Your task to perform on an android device: find which apps use the phone's location Image 0: 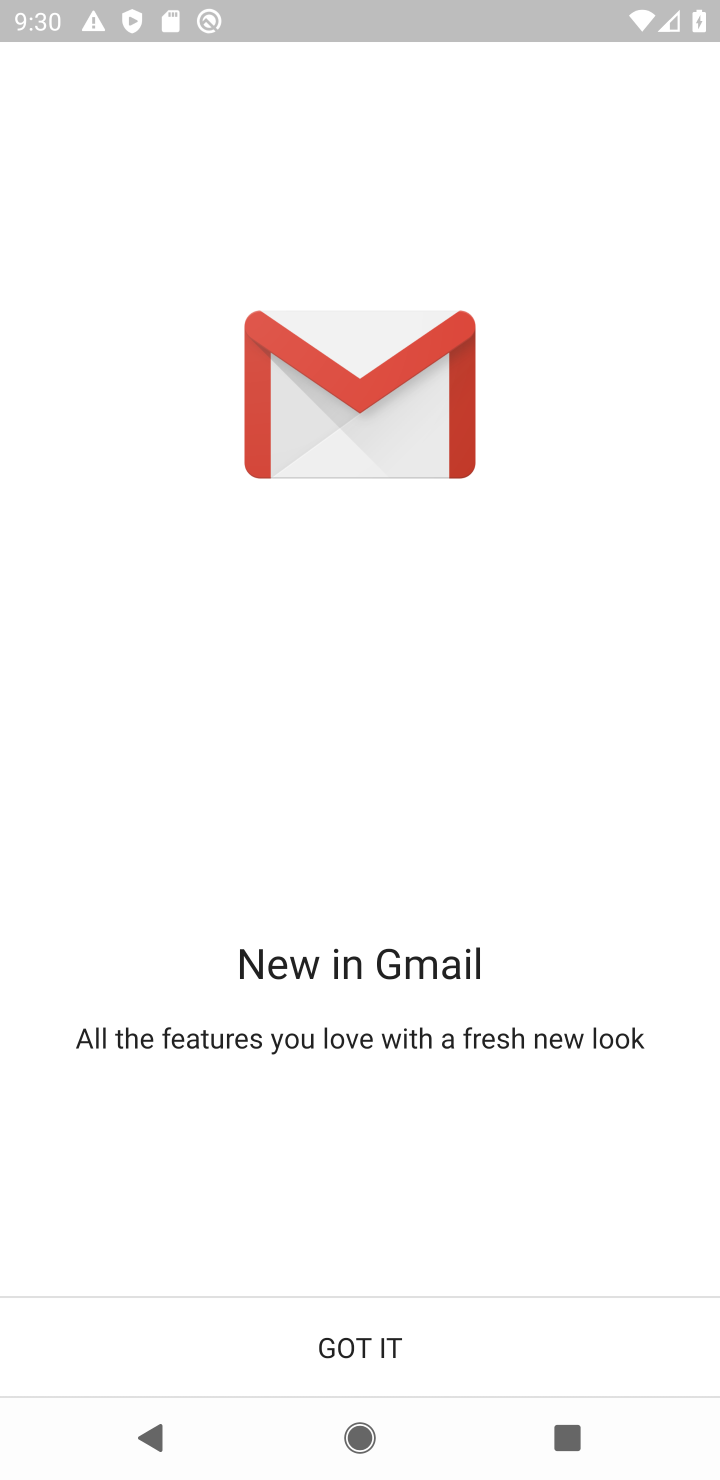
Step 0: press home button
Your task to perform on an android device: find which apps use the phone's location Image 1: 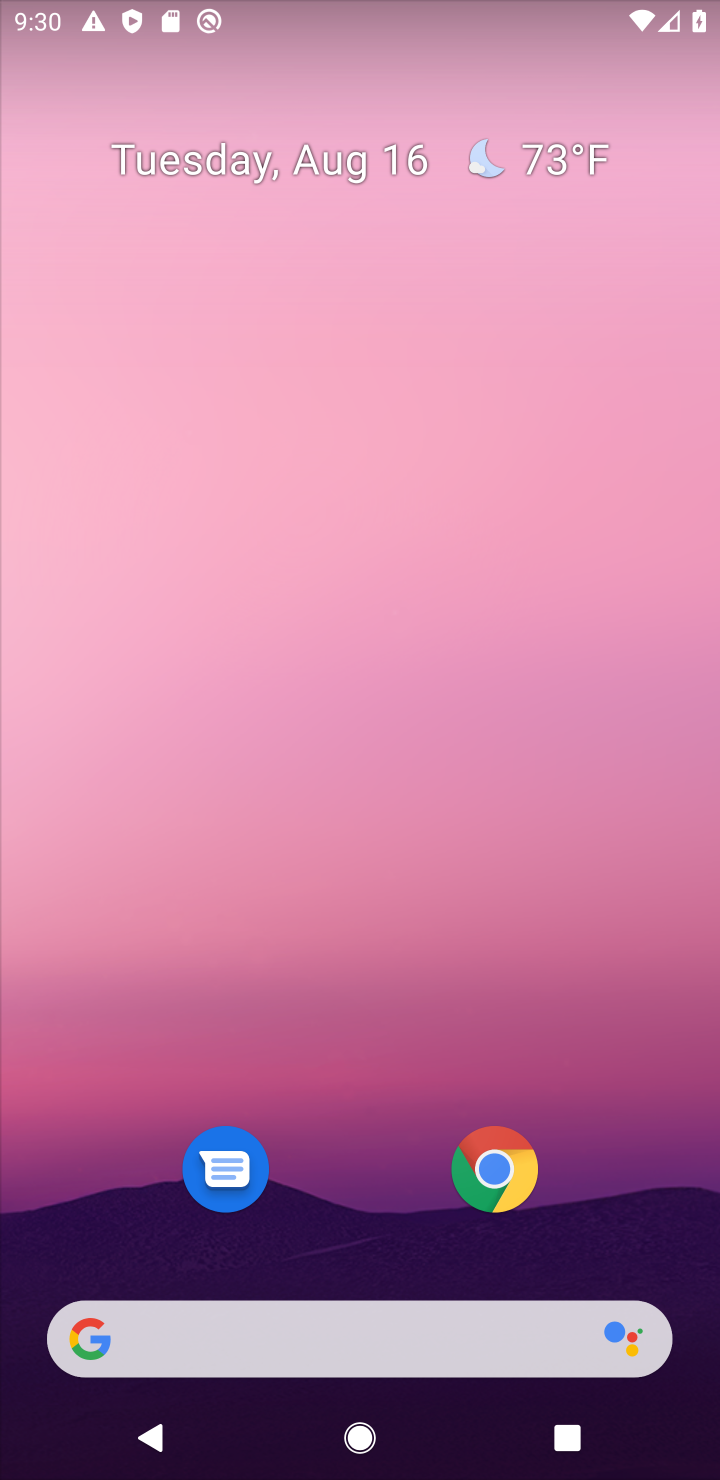
Step 1: drag from (354, 958) to (404, 355)
Your task to perform on an android device: find which apps use the phone's location Image 2: 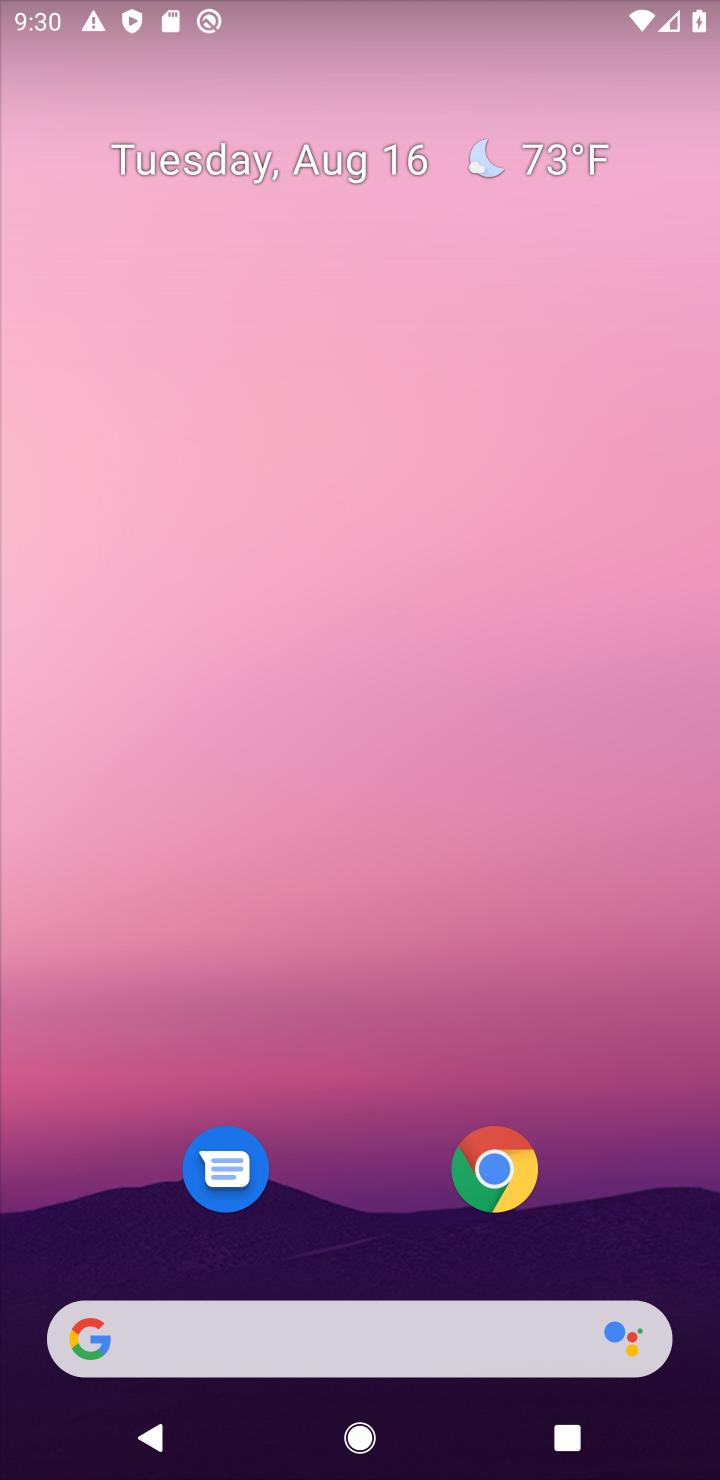
Step 2: drag from (320, 1123) to (164, 164)
Your task to perform on an android device: find which apps use the phone's location Image 3: 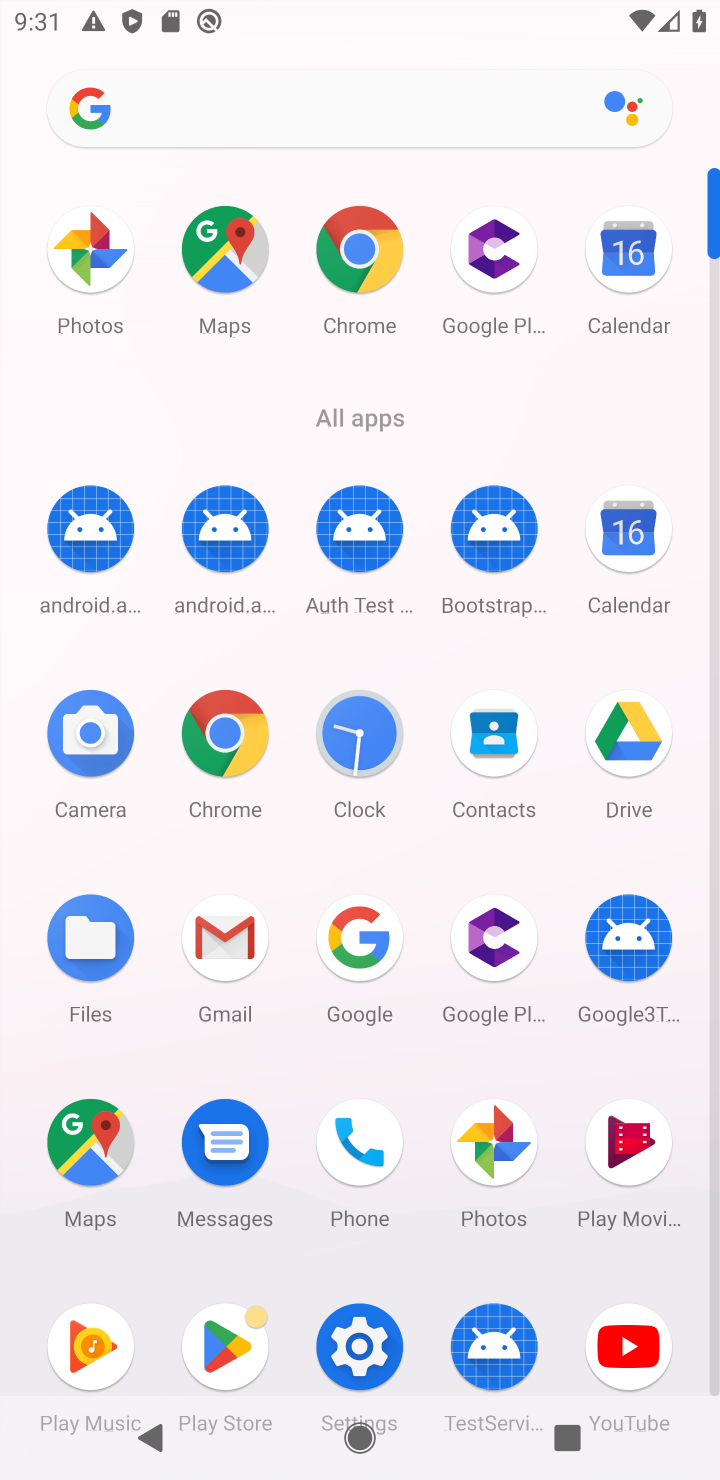
Step 3: click (340, 1357)
Your task to perform on an android device: find which apps use the phone's location Image 4: 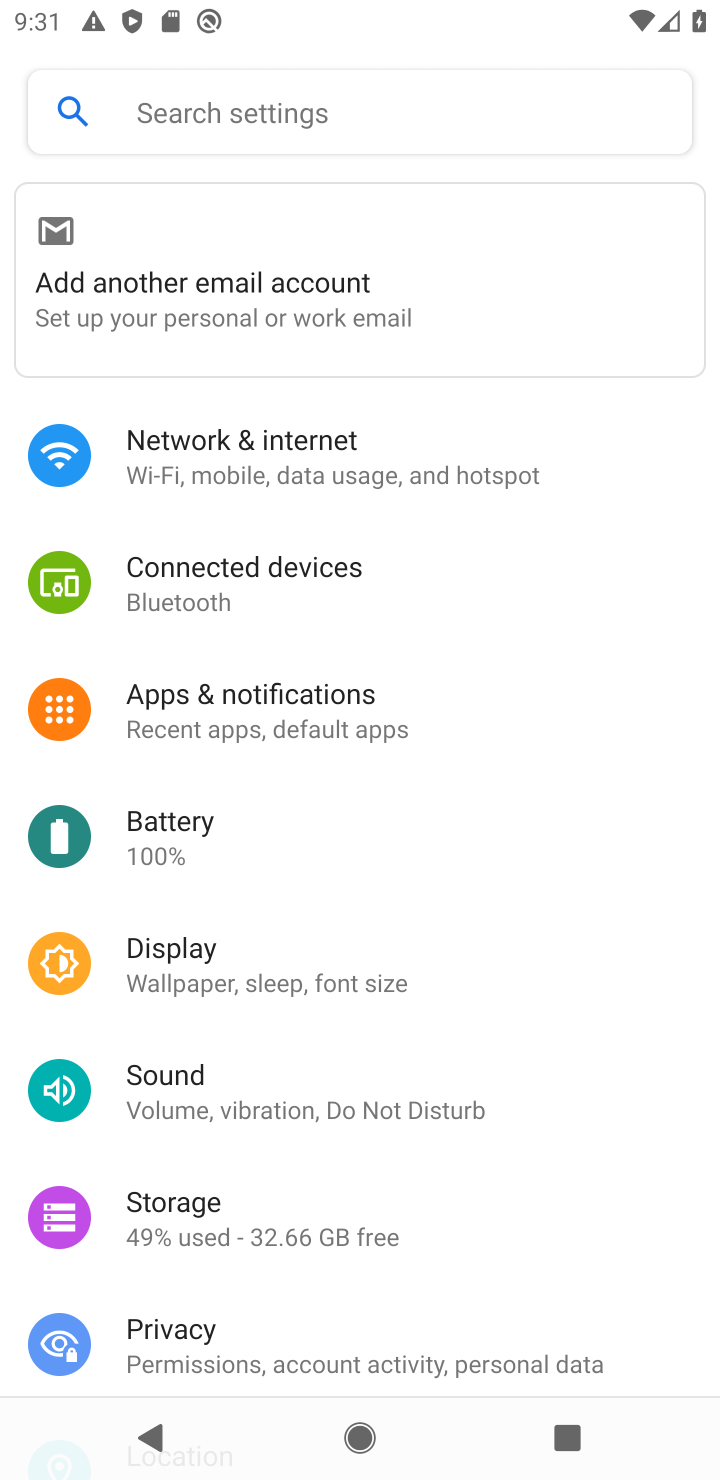
Step 4: drag from (202, 955) to (201, 448)
Your task to perform on an android device: find which apps use the phone's location Image 5: 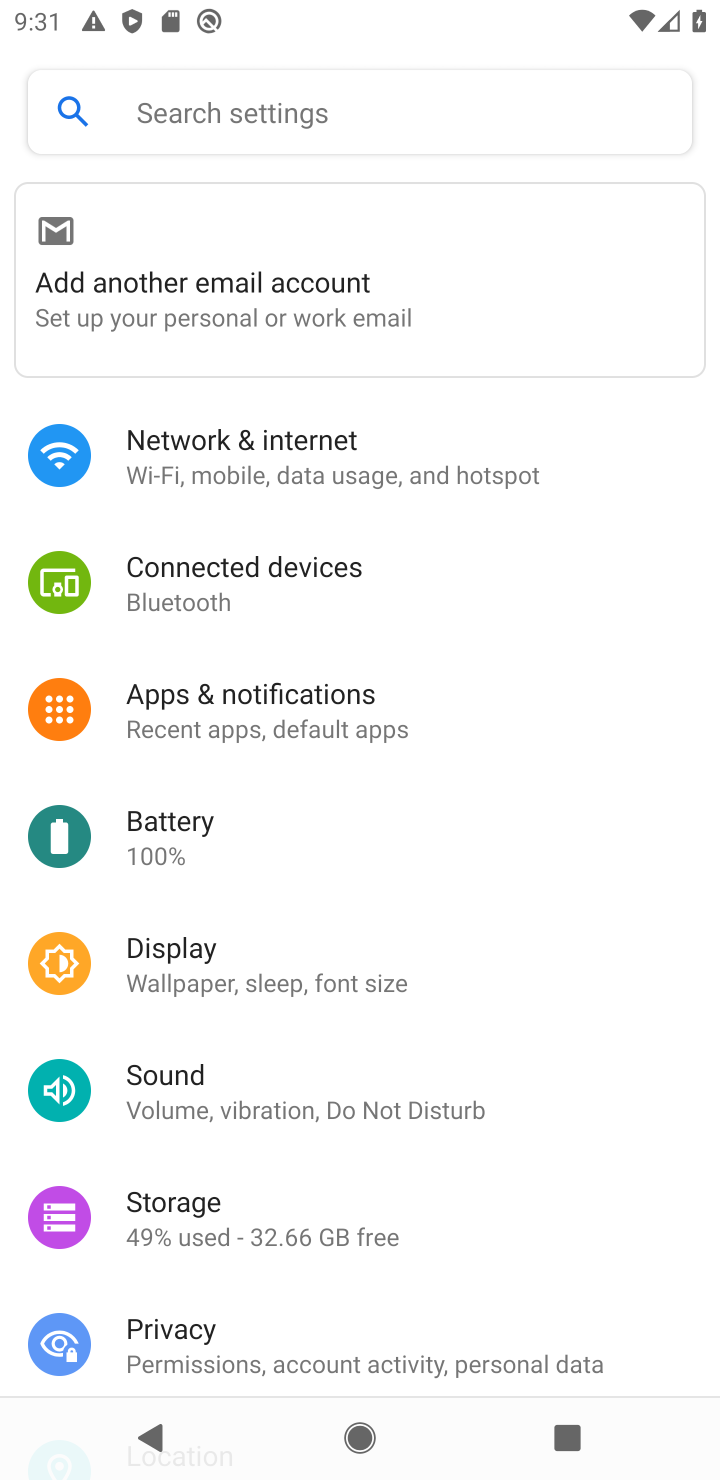
Step 5: drag from (236, 1237) to (278, 404)
Your task to perform on an android device: find which apps use the phone's location Image 6: 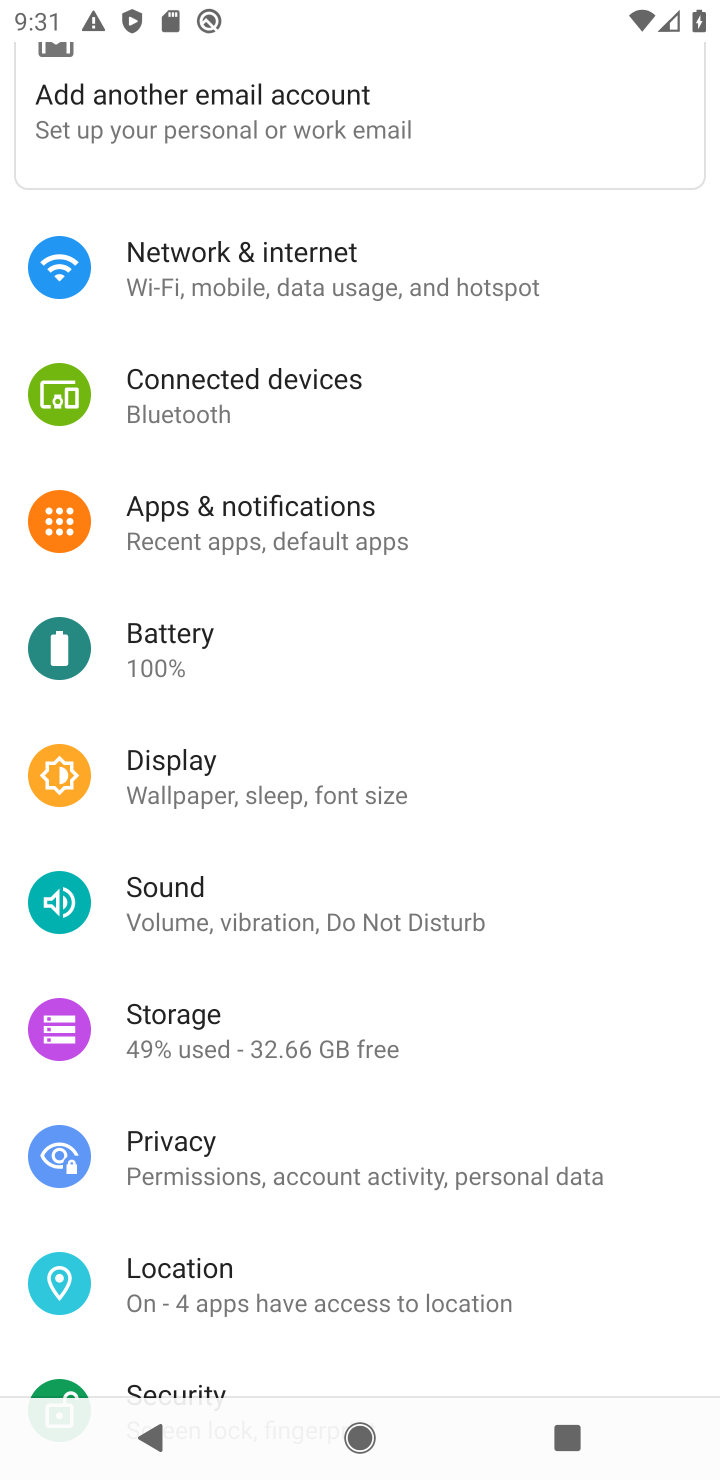
Step 6: click (155, 1272)
Your task to perform on an android device: find which apps use the phone's location Image 7: 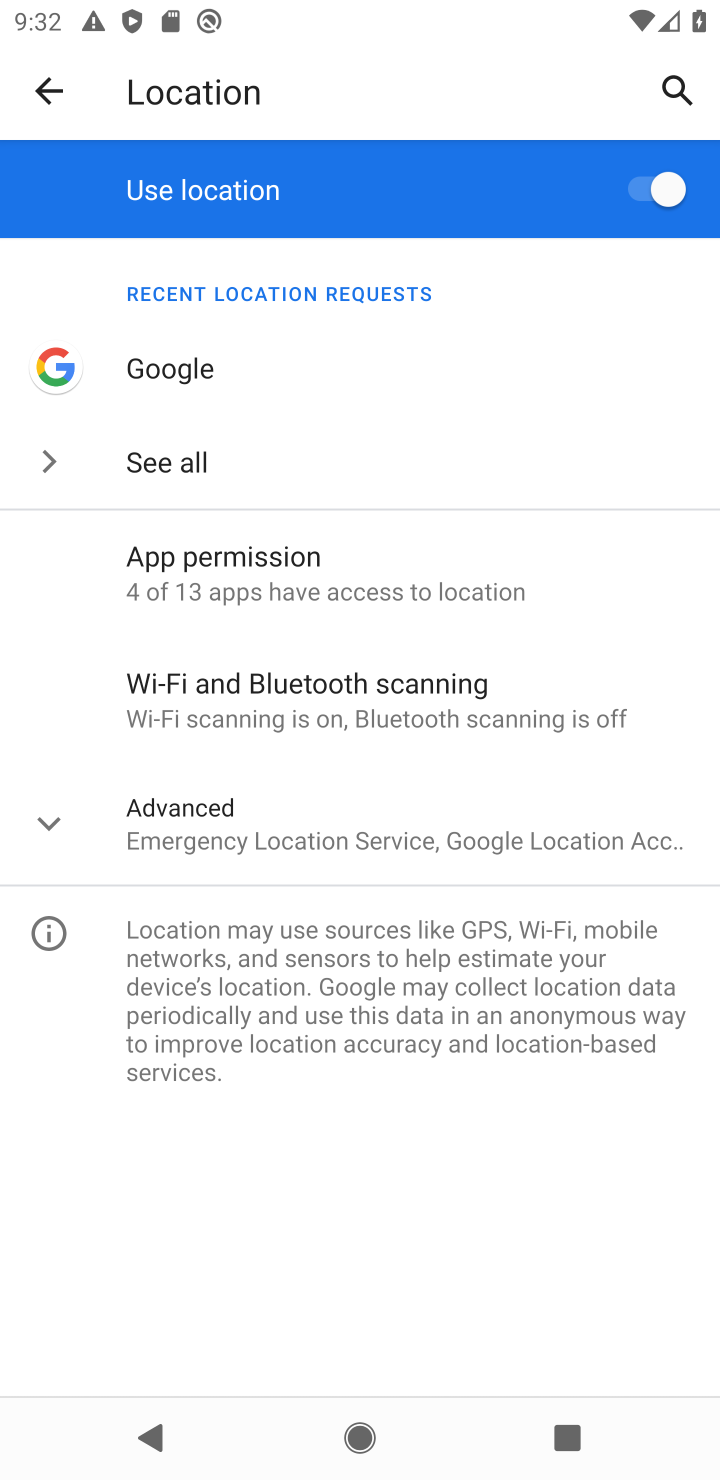
Step 7: click (238, 820)
Your task to perform on an android device: find which apps use the phone's location Image 8: 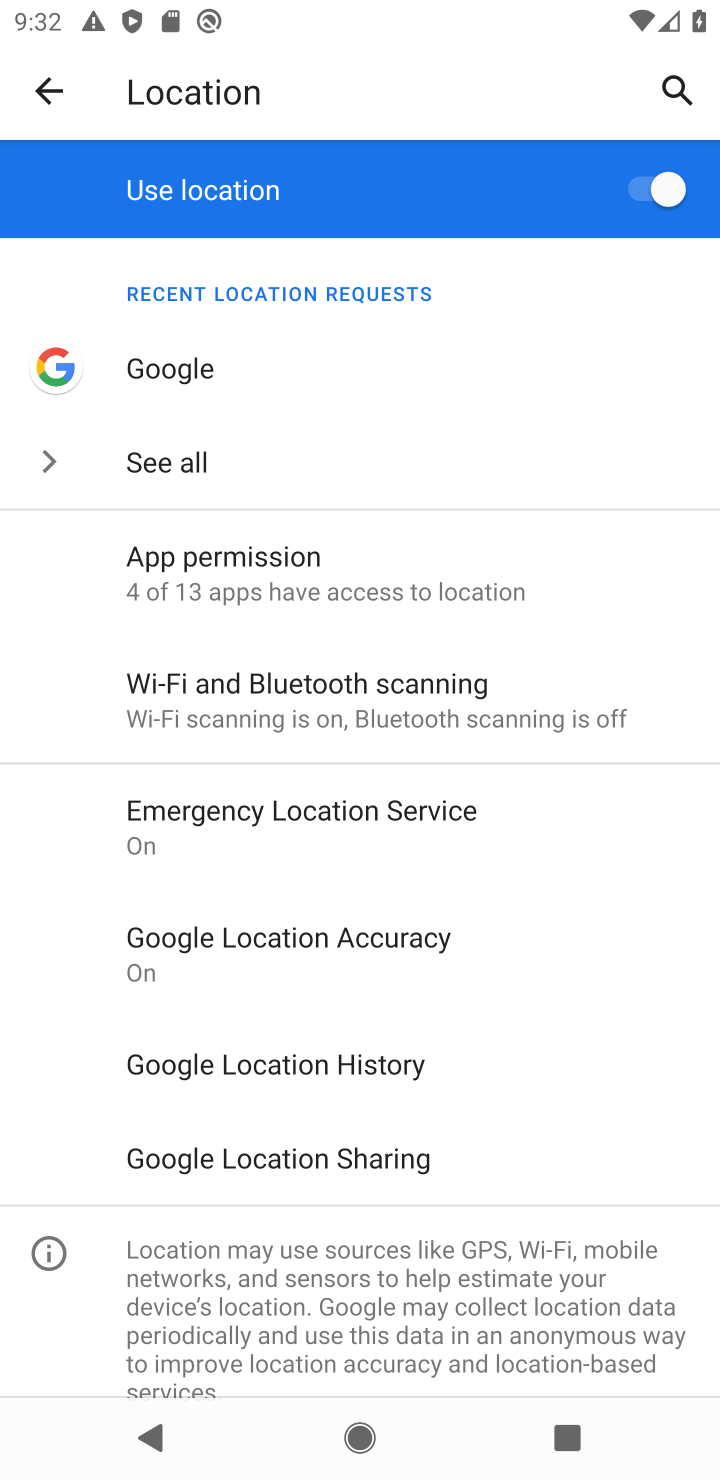
Step 8: click (206, 576)
Your task to perform on an android device: find which apps use the phone's location Image 9: 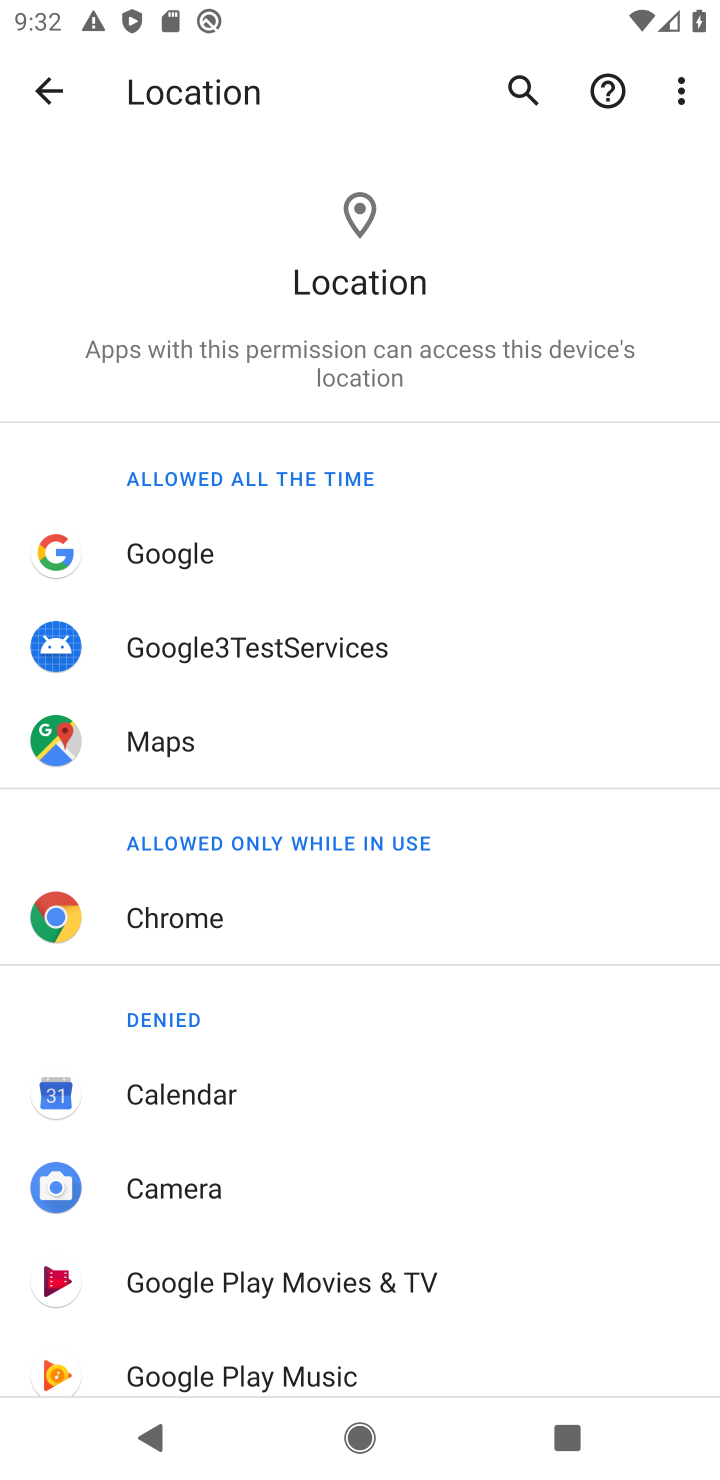
Step 9: task complete